Your task to perform on an android device: install app "File Manager" Image 0: 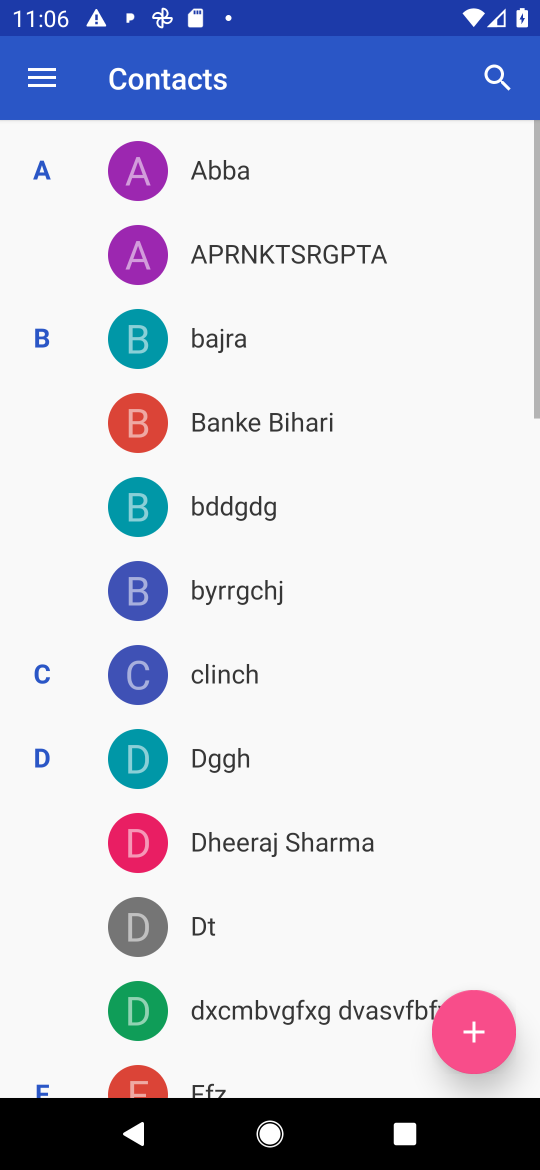
Step 0: press home button
Your task to perform on an android device: install app "File Manager" Image 1: 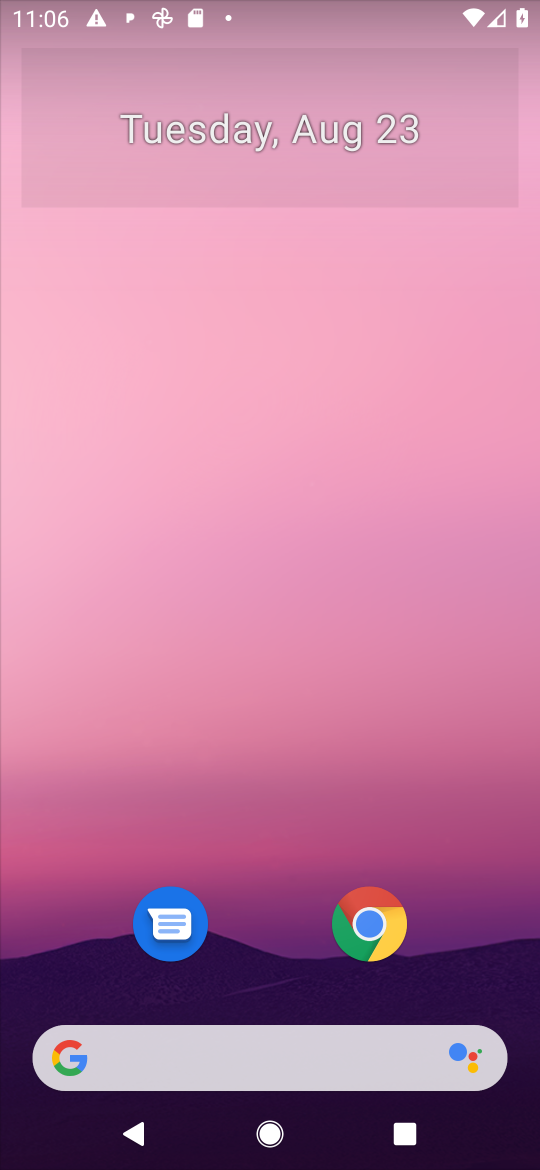
Step 1: drag from (470, 898) to (495, 85)
Your task to perform on an android device: install app "File Manager" Image 2: 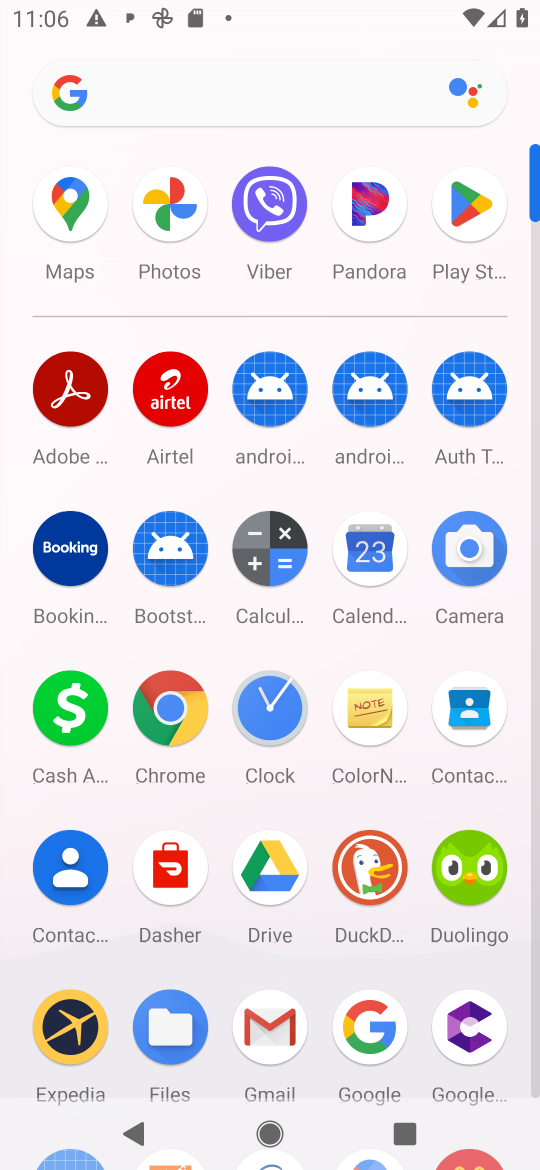
Step 2: click (468, 218)
Your task to perform on an android device: install app "File Manager" Image 3: 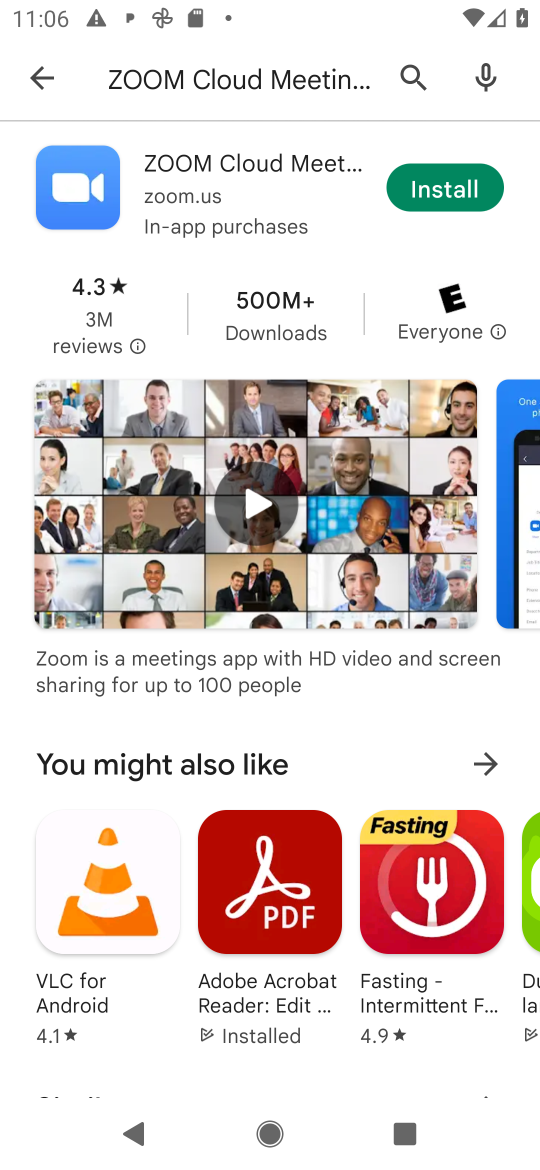
Step 3: press back button
Your task to perform on an android device: install app "File Manager" Image 4: 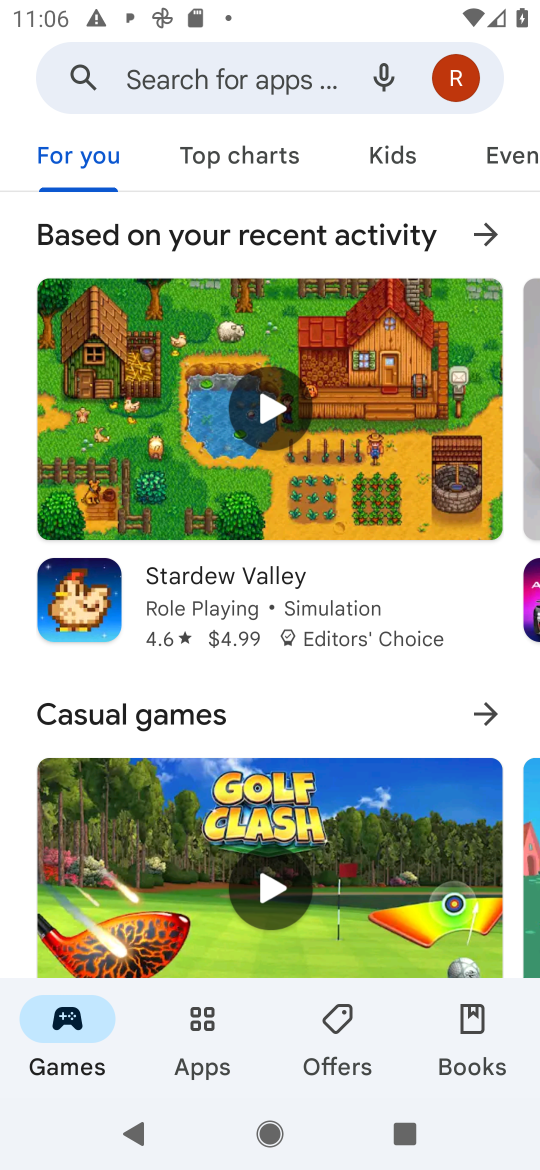
Step 4: click (274, 81)
Your task to perform on an android device: install app "File Manager" Image 5: 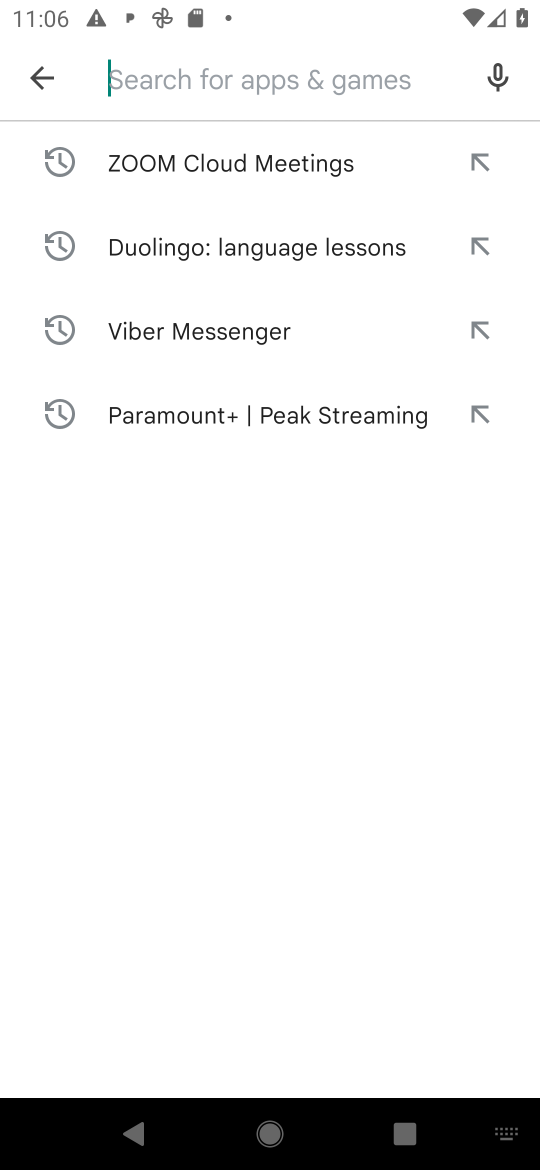
Step 5: press enter
Your task to perform on an android device: install app "File Manager" Image 6: 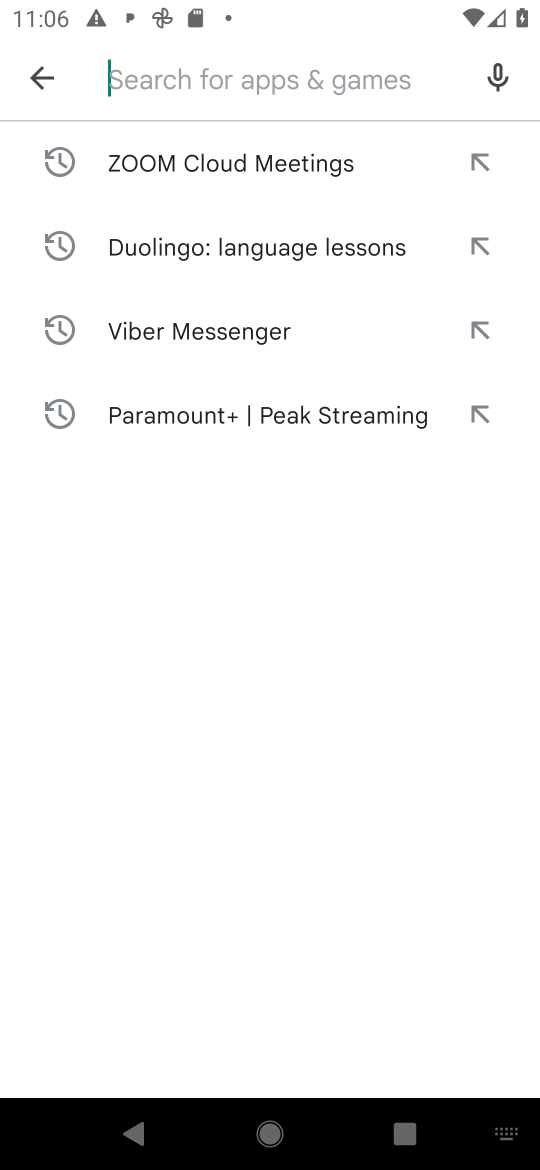
Step 6: type "file manager"
Your task to perform on an android device: install app "File Manager" Image 7: 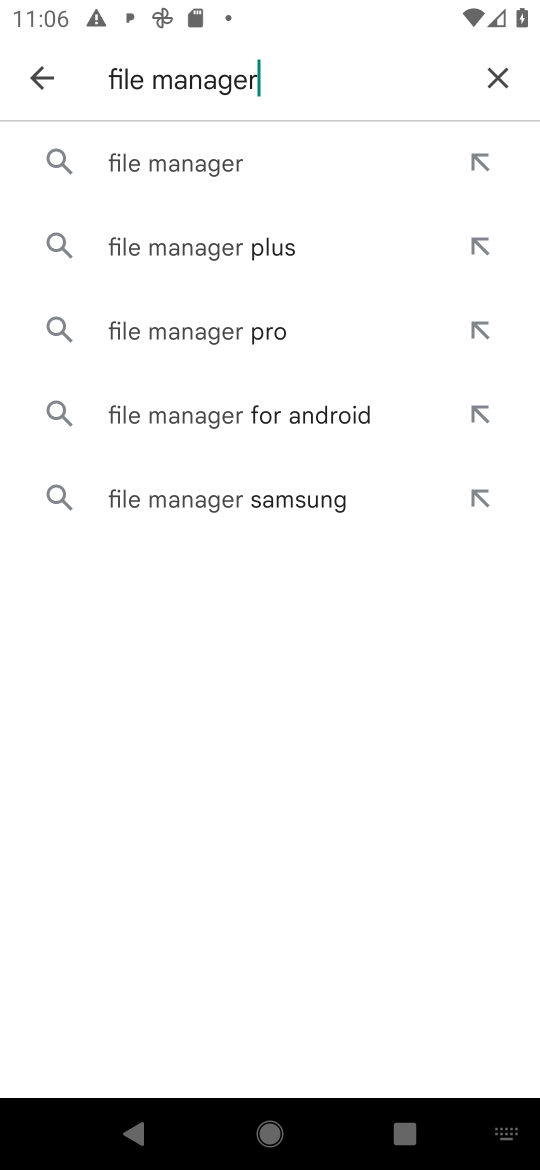
Step 7: click (211, 155)
Your task to perform on an android device: install app "File Manager" Image 8: 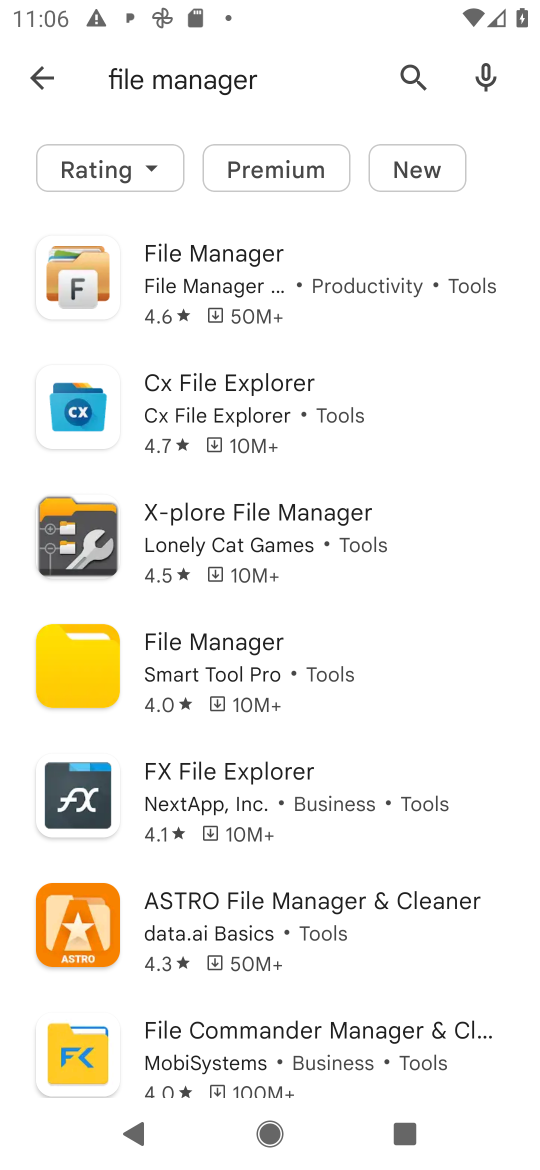
Step 8: task complete